Your task to perform on an android device: open app "Adobe Acrobat Reader" (install if not already installed) Image 0: 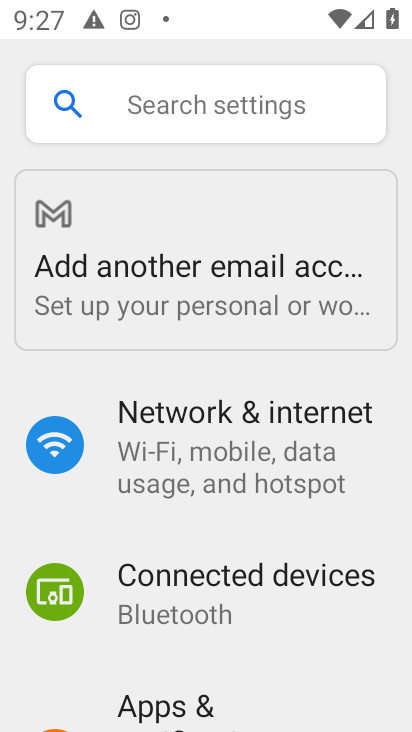
Step 0: press home button
Your task to perform on an android device: open app "Adobe Acrobat Reader" (install if not already installed) Image 1: 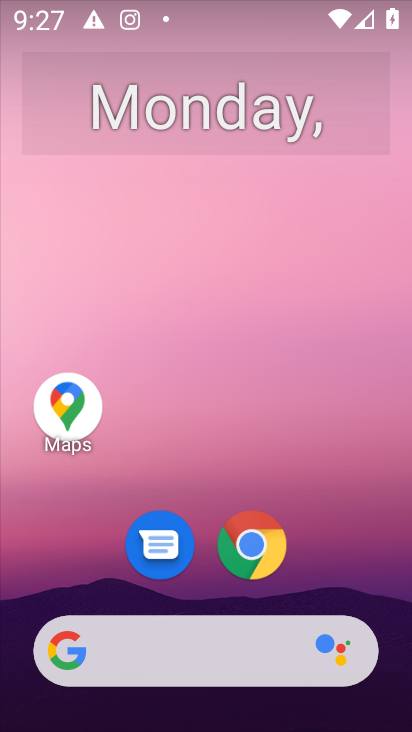
Step 1: drag from (377, 571) to (389, 94)
Your task to perform on an android device: open app "Adobe Acrobat Reader" (install if not already installed) Image 2: 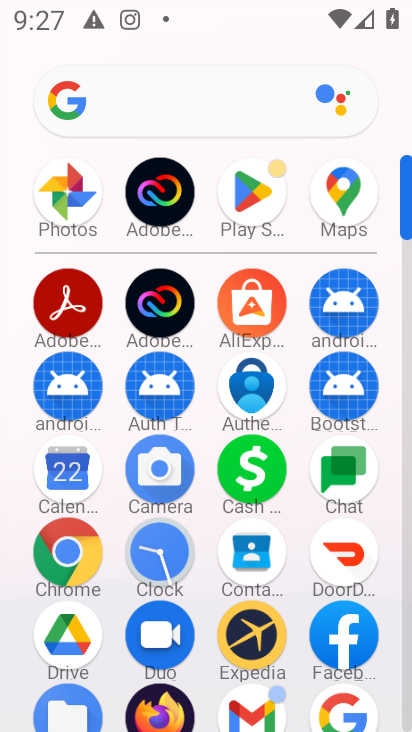
Step 2: click (238, 198)
Your task to perform on an android device: open app "Adobe Acrobat Reader" (install if not already installed) Image 3: 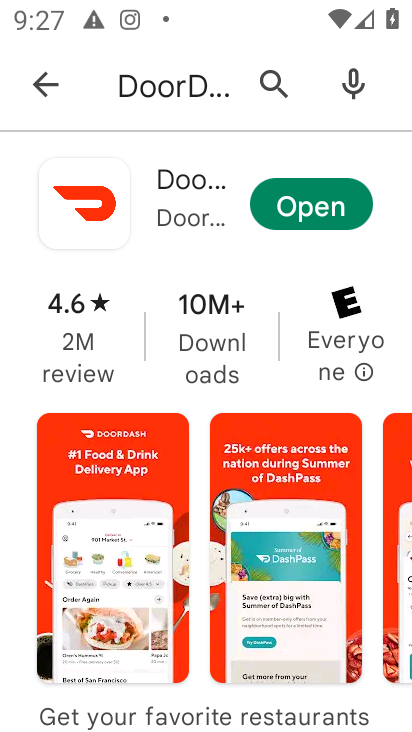
Step 3: press back button
Your task to perform on an android device: open app "Adobe Acrobat Reader" (install if not already installed) Image 4: 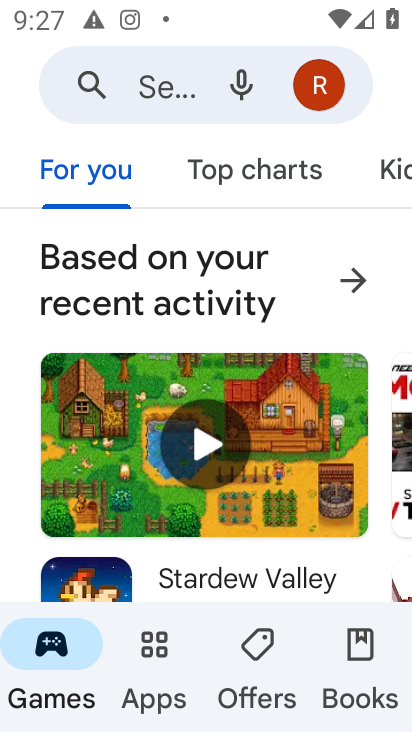
Step 4: click (138, 90)
Your task to perform on an android device: open app "Adobe Acrobat Reader" (install if not already installed) Image 5: 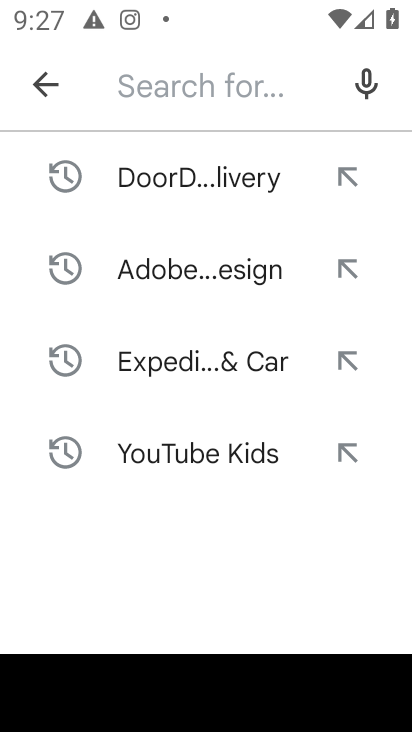
Step 5: press enter
Your task to perform on an android device: open app "Adobe Acrobat Reader" (install if not already installed) Image 6: 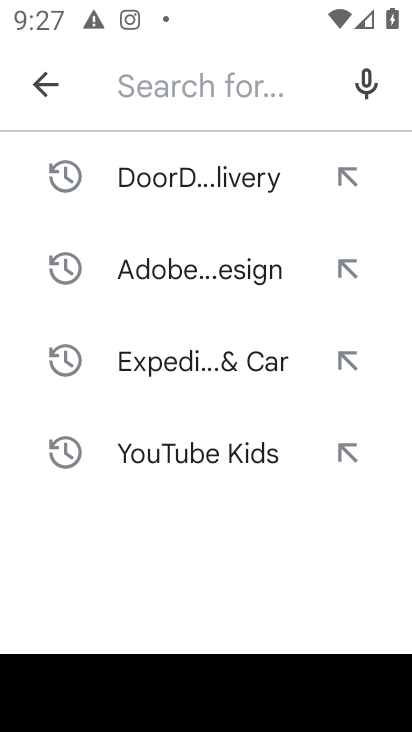
Step 6: type "Adobe Acrobat Reader"
Your task to perform on an android device: open app "Adobe Acrobat Reader" (install if not already installed) Image 7: 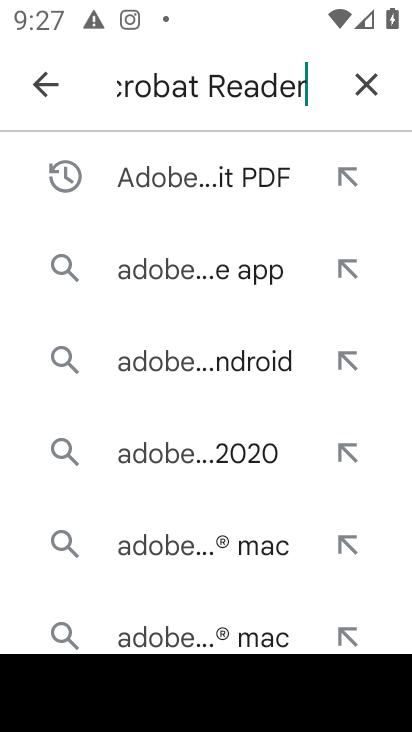
Step 7: click (229, 183)
Your task to perform on an android device: open app "Adobe Acrobat Reader" (install if not already installed) Image 8: 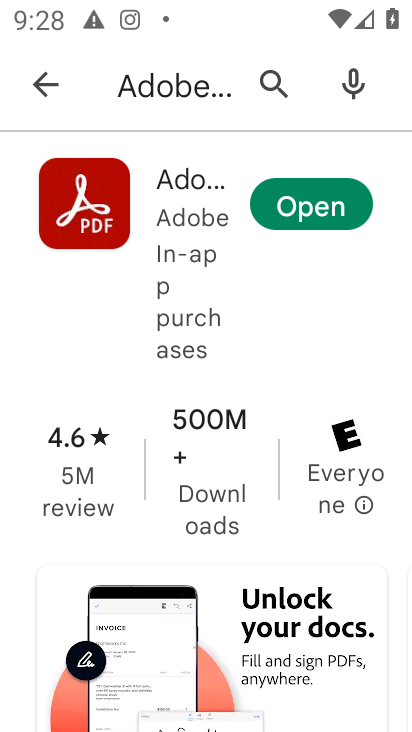
Step 8: click (297, 210)
Your task to perform on an android device: open app "Adobe Acrobat Reader" (install if not already installed) Image 9: 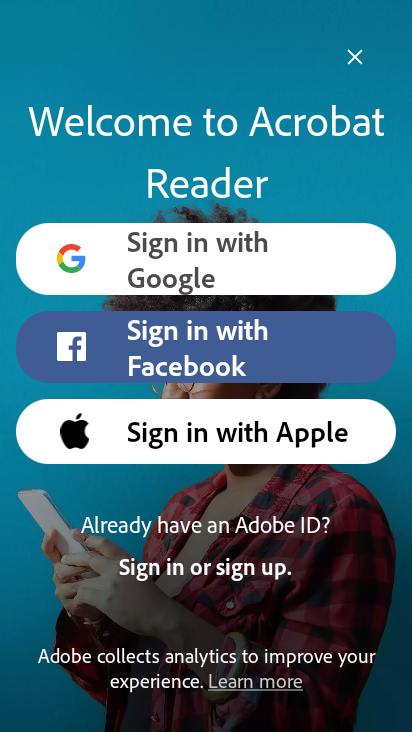
Step 9: task complete